Your task to perform on an android device: Open display settings Image 0: 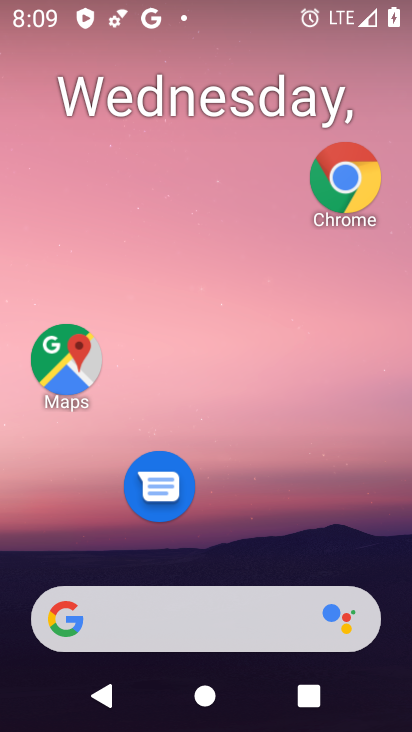
Step 0: drag from (281, 626) to (344, 122)
Your task to perform on an android device: Open display settings Image 1: 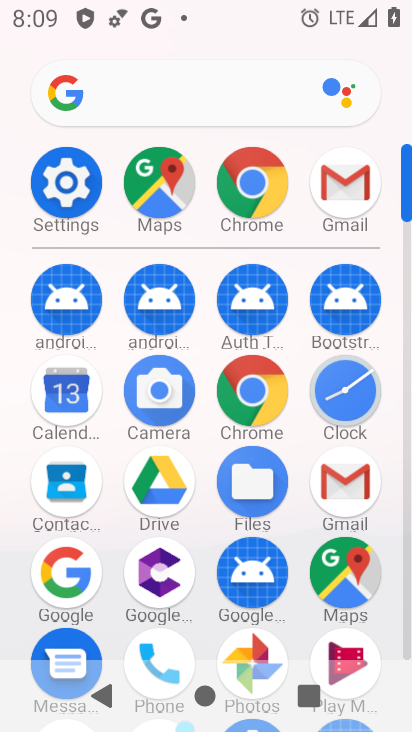
Step 1: click (53, 183)
Your task to perform on an android device: Open display settings Image 2: 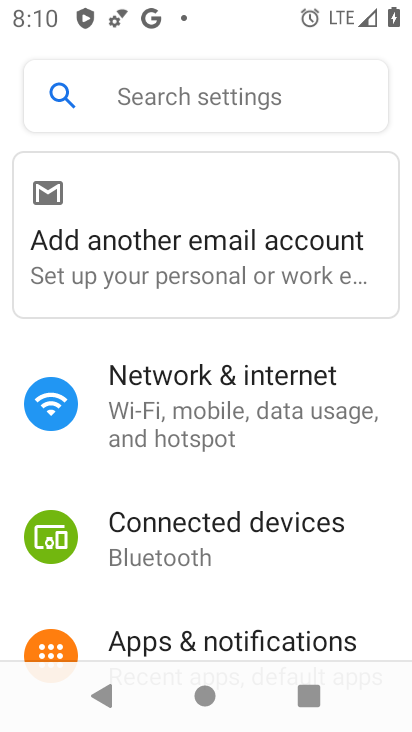
Step 2: drag from (212, 550) to (266, 210)
Your task to perform on an android device: Open display settings Image 3: 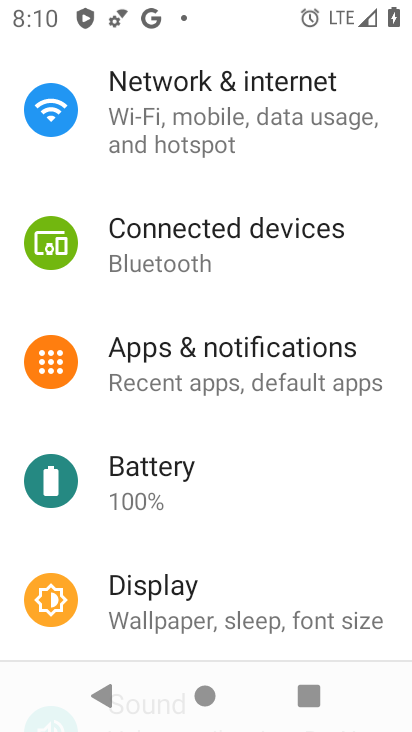
Step 3: click (200, 606)
Your task to perform on an android device: Open display settings Image 4: 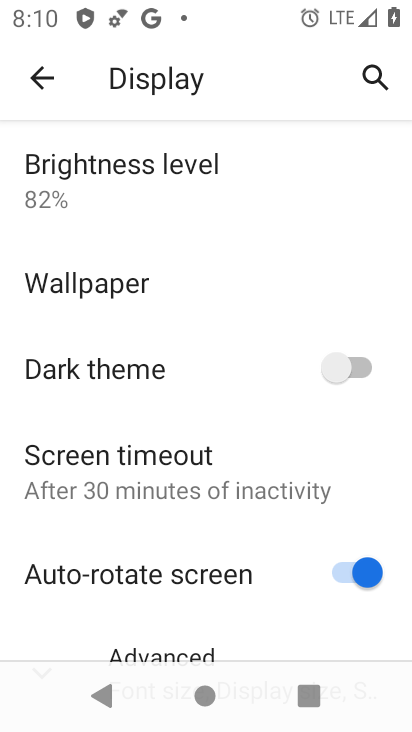
Step 4: task complete